Your task to perform on an android device: turn on bluetooth scan Image 0: 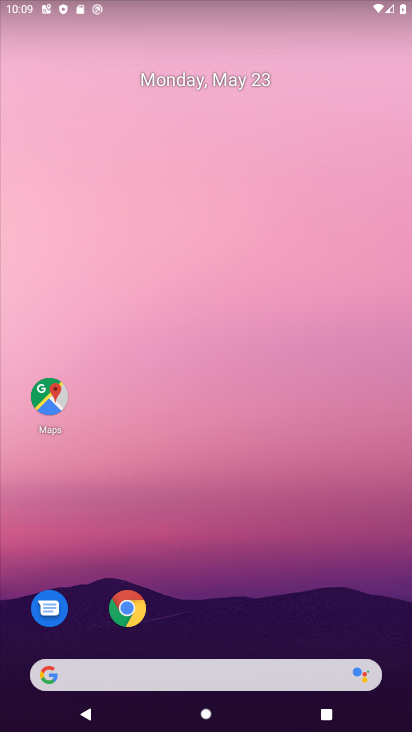
Step 0: drag from (168, 658) to (300, 148)
Your task to perform on an android device: turn on bluetooth scan Image 1: 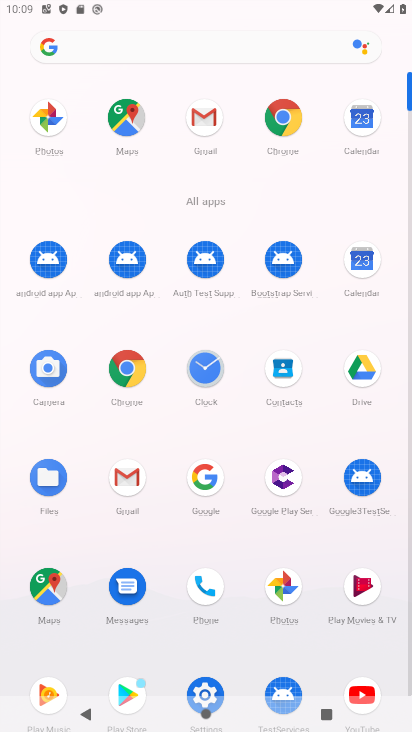
Step 1: drag from (212, 639) to (258, 431)
Your task to perform on an android device: turn on bluetooth scan Image 2: 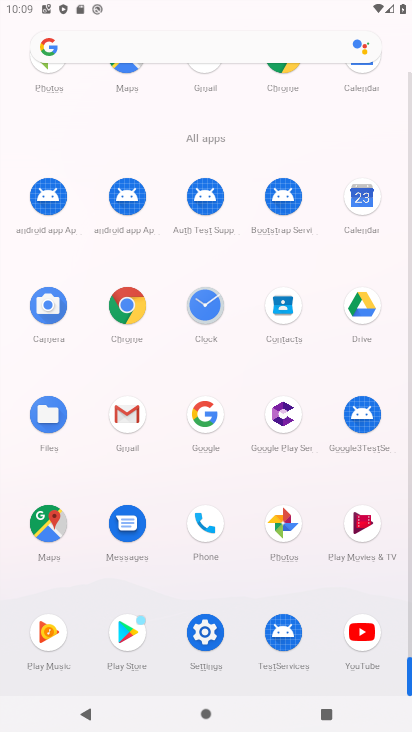
Step 2: click (205, 638)
Your task to perform on an android device: turn on bluetooth scan Image 3: 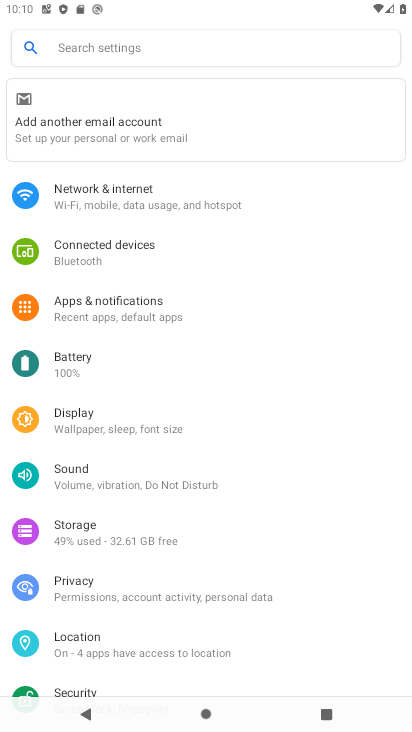
Step 3: click (153, 258)
Your task to perform on an android device: turn on bluetooth scan Image 4: 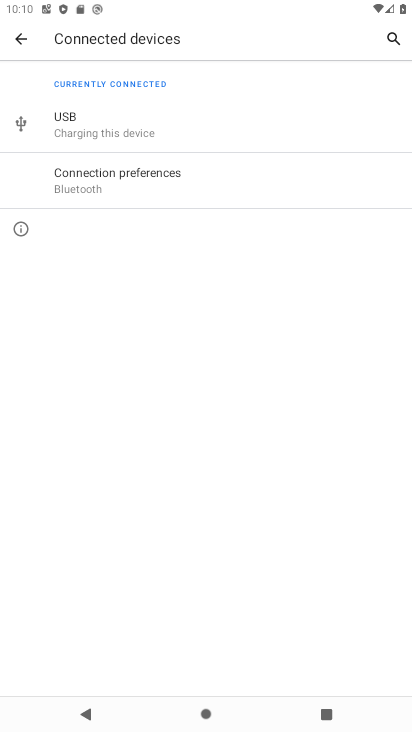
Step 4: click (151, 181)
Your task to perform on an android device: turn on bluetooth scan Image 5: 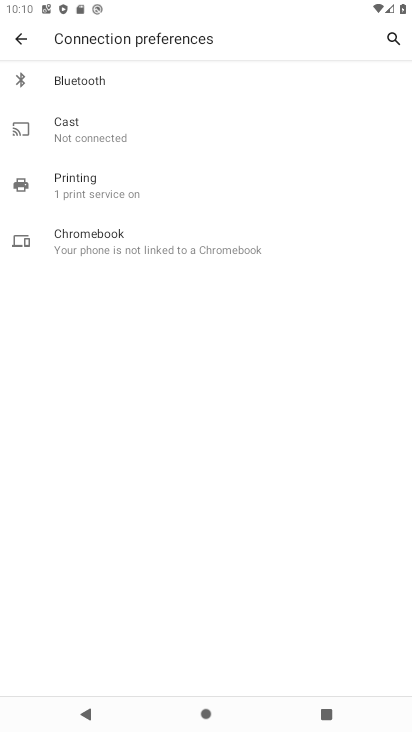
Step 5: click (129, 88)
Your task to perform on an android device: turn on bluetooth scan Image 6: 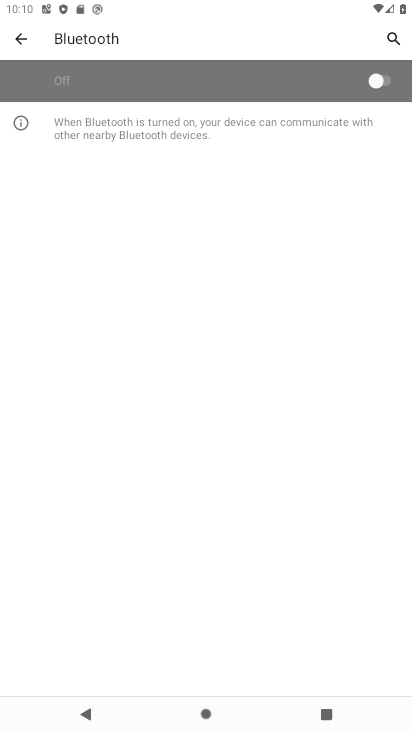
Step 6: click (396, 80)
Your task to perform on an android device: turn on bluetooth scan Image 7: 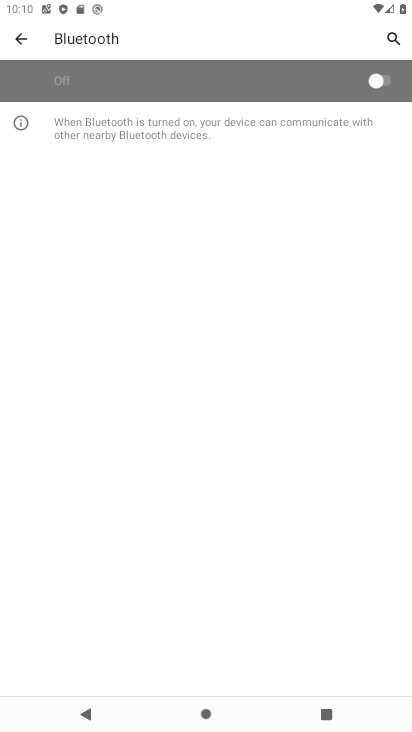
Step 7: click (396, 80)
Your task to perform on an android device: turn on bluetooth scan Image 8: 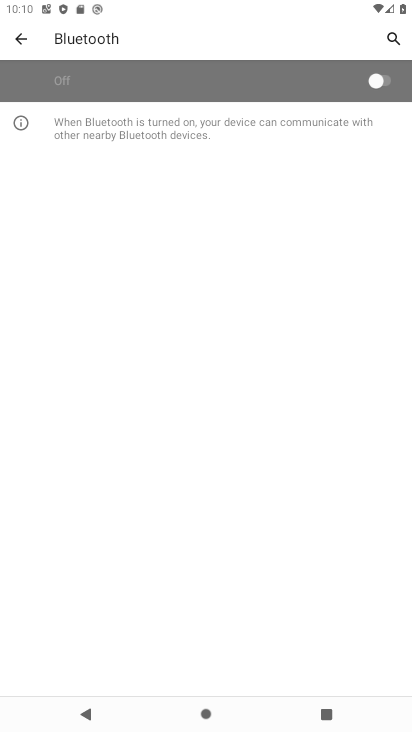
Step 8: task complete